Your task to perform on an android device: set the stopwatch Image 0: 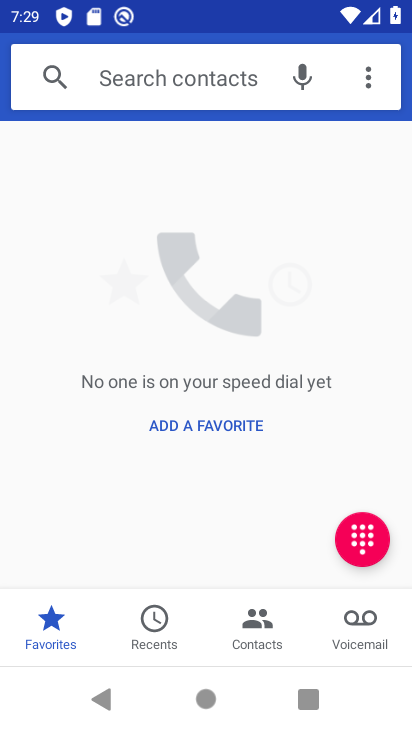
Step 0: press home button
Your task to perform on an android device: set the stopwatch Image 1: 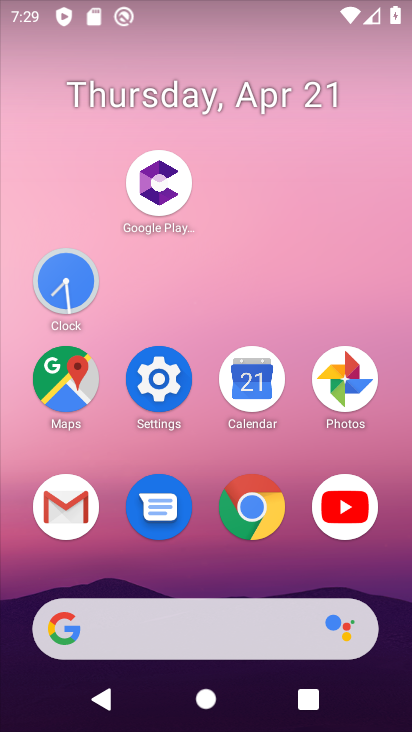
Step 1: click (68, 274)
Your task to perform on an android device: set the stopwatch Image 2: 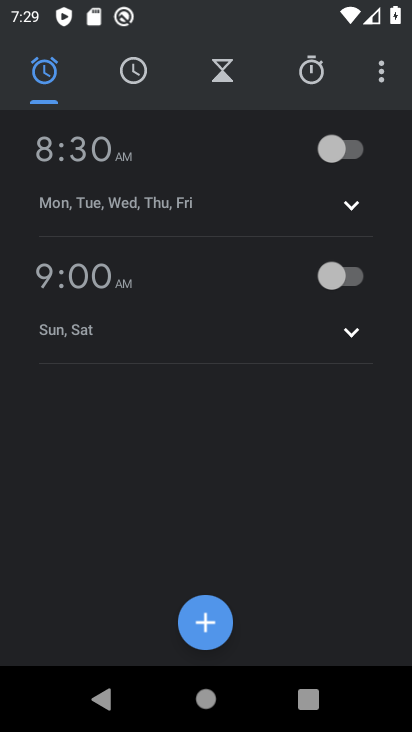
Step 2: click (312, 74)
Your task to perform on an android device: set the stopwatch Image 3: 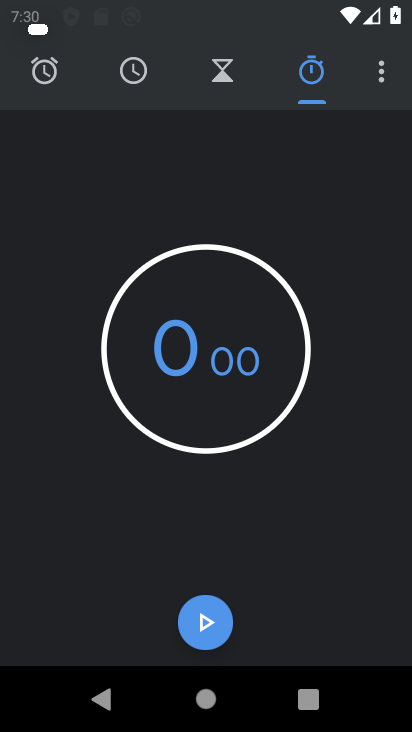
Step 3: task complete